Your task to perform on an android device: Open Google Chrome and open the bookmarks view Image 0: 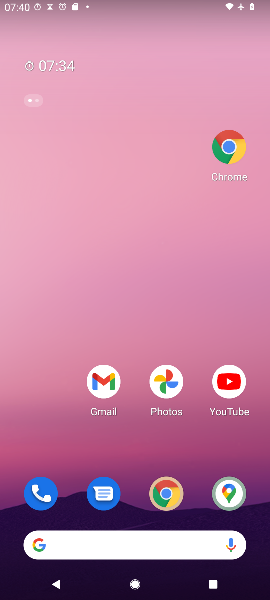
Step 0: press home button
Your task to perform on an android device: Open Google Chrome and open the bookmarks view Image 1: 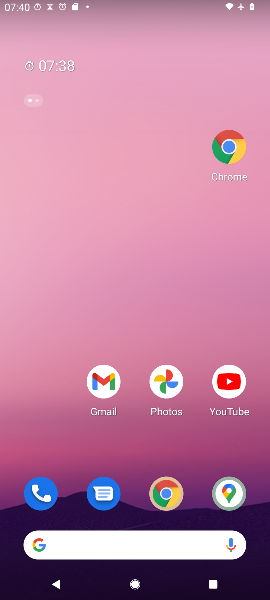
Step 1: click (173, 489)
Your task to perform on an android device: Open Google Chrome and open the bookmarks view Image 2: 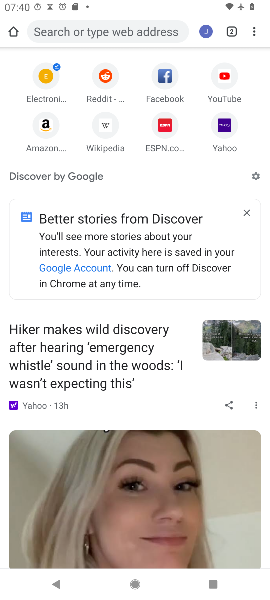
Step 2: task complete